Your task to perform on an android device: open app "DoorDash - Dasher" (install if not already installed) and go to login screen Image 0: 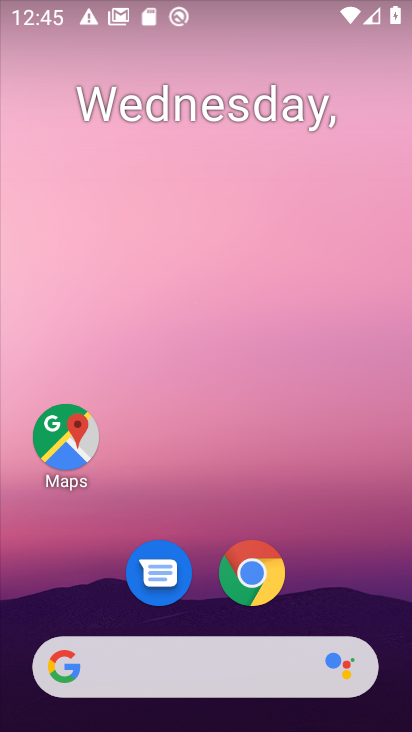
Step 0: press home button
Your task to perform on an android device: open app "DoorDash - Dasher" (install if not already installed) and go to login screen Image 1: 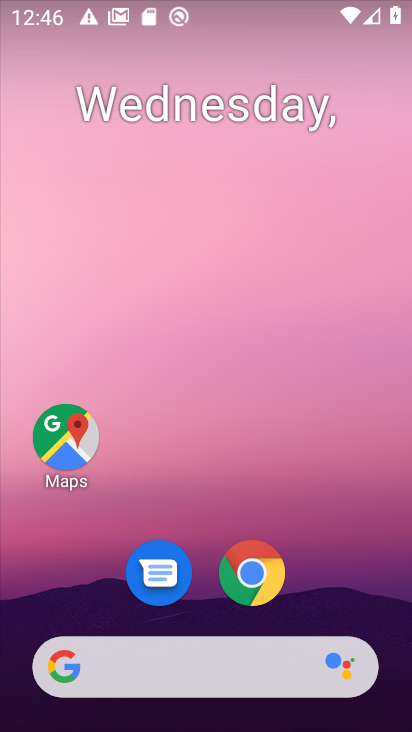
Step 1: drag from (307, 617) to (336, 21)
Your task to perform on an android device: open app "DoorDash - Dasher" (install if not already installed) and go to login screen Image 2: 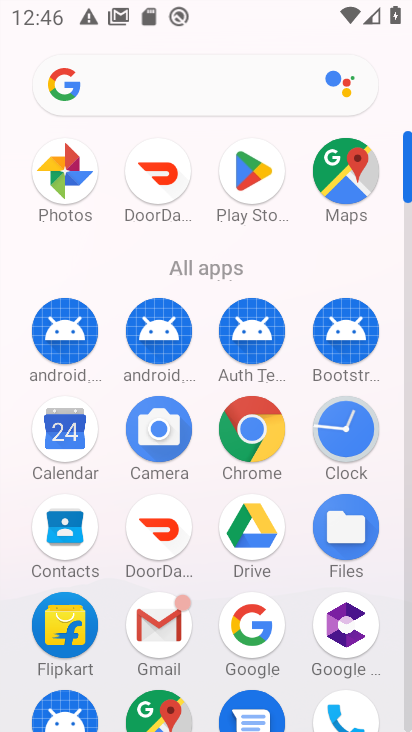
Step 2: click (246, 166)
Your task to perform on an android device: open app "DoorDash - Dasher" (install if not already installed) and go to login screen Image 3: 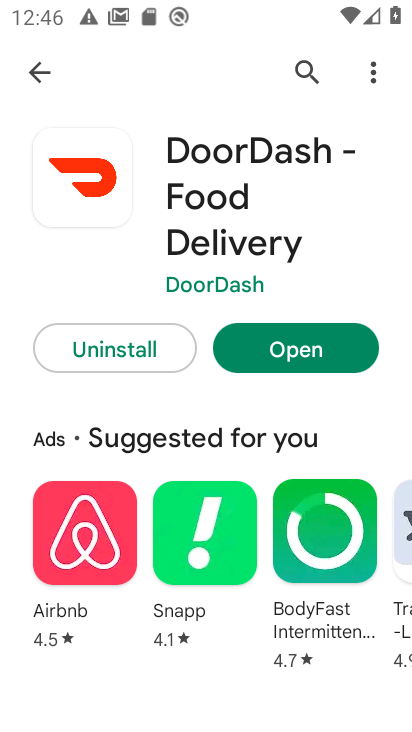
Step 3: click (301, 69)
Your task to perform on an android device: open app "DoorDash - Dasher" (install if not already installed) and go to login screen Image 4: 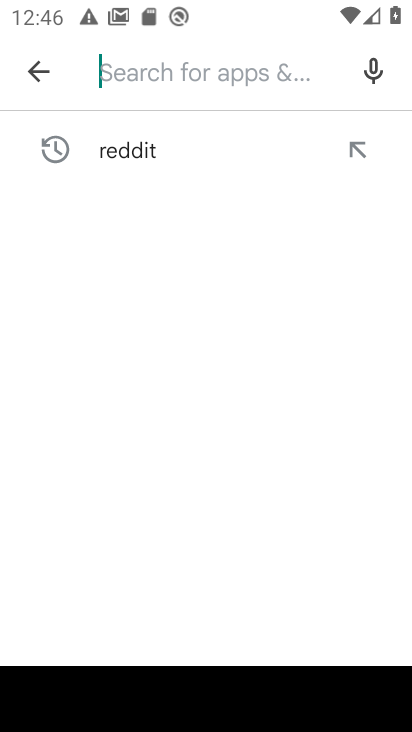
Step 4: type "DoorDash - Dasher"
Your task to perform on an android device: open app "DoorDash - Dasher" (install if not already installed) and go to login screen Image 5: 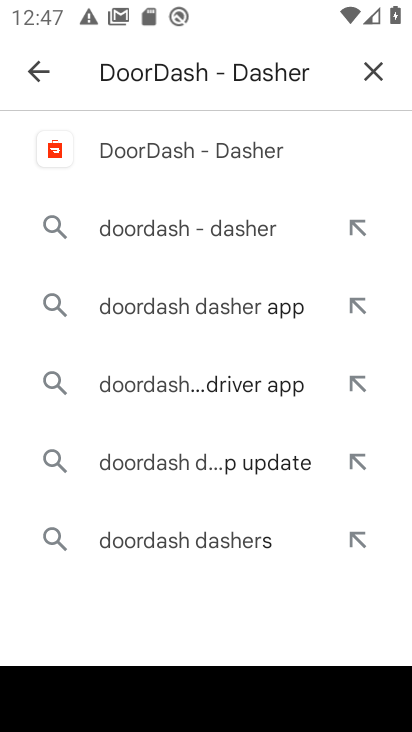
Step 5: click (152, 152)
Your task to perform on an android device: open app "DoorDash - Dasher" (install if not already installed) and go to login screen Image 6: 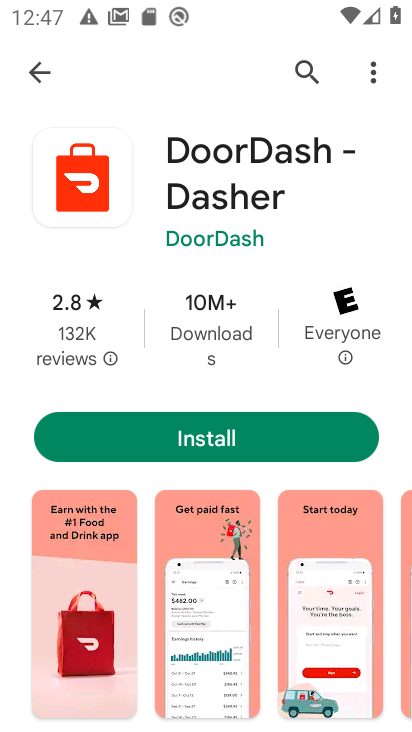
Step 6: click (214, 429)
Your task to perform on an android device: open app "DoorDash - Dasher" (install if not already installed) and go to login screen Image 7: 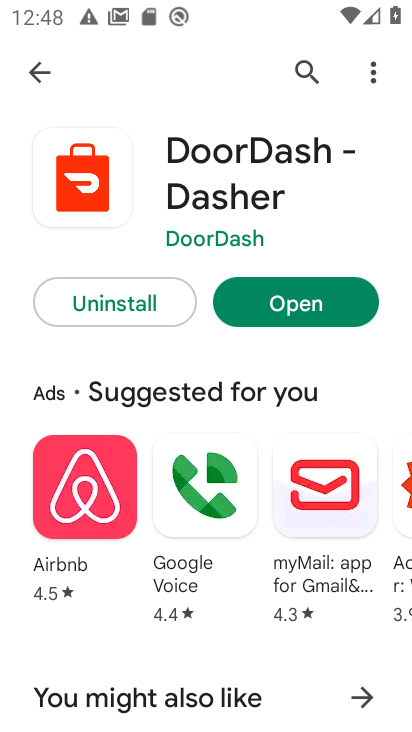
Step 7: click (281, 303)
Your task to perform on an android device: open app "DoorDash - Dasher" (install if not already installed) and go to login screen Image 8: 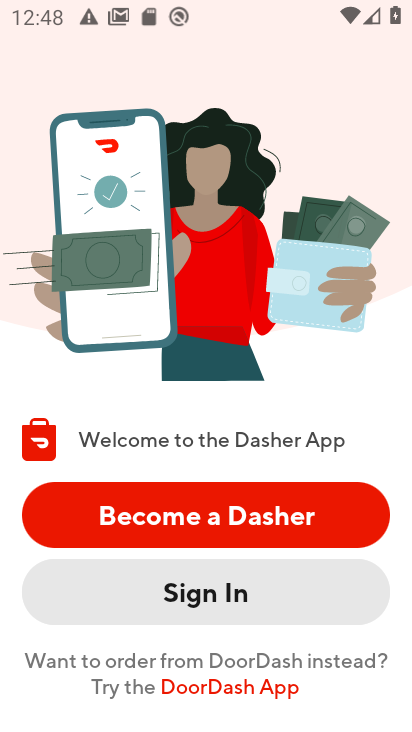
Step 8: task complete